Your task to perform on an android device: check out phone information Image 0: 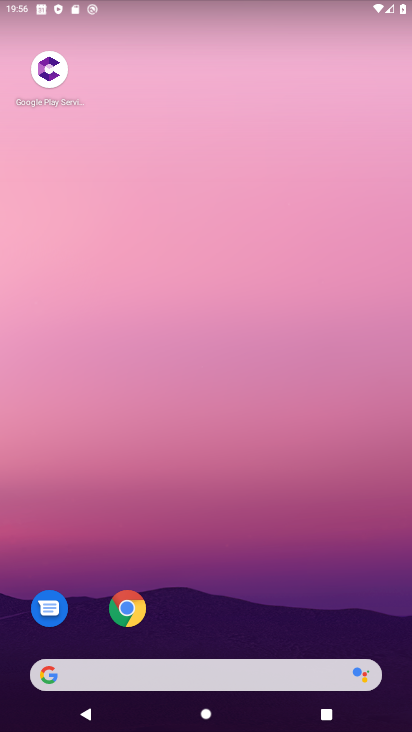
Step 0: drag from (275, 579) to (211, 80)
Your task to perform on an android device: check out phone information Image 1: 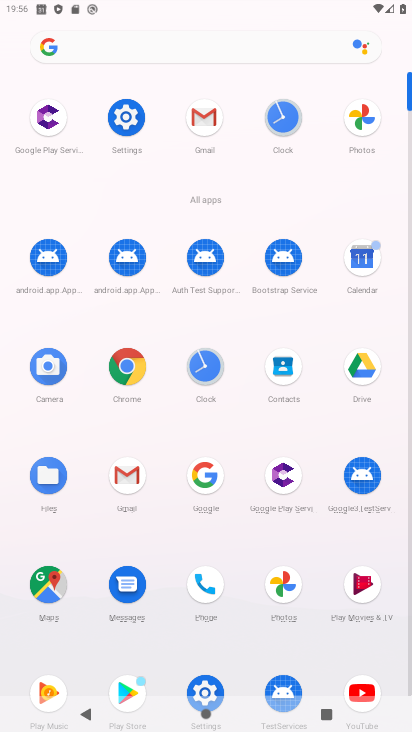
Step 1: click (124, 117)
Your task to perform on an android device: check out phone information Image 2: 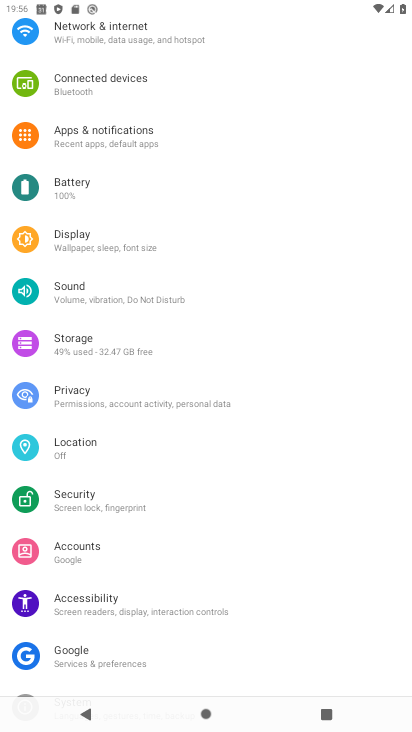
Step 2: drag from (181, 655) to (175, 39)
Your task to perform on an android device: check out phone information Image 3: 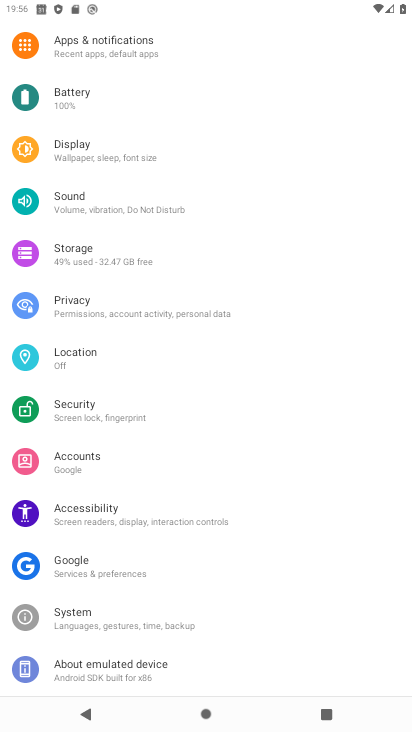
Step 3: click (147, 669)
Your task to perform on an android device: check out phone information Image 4: 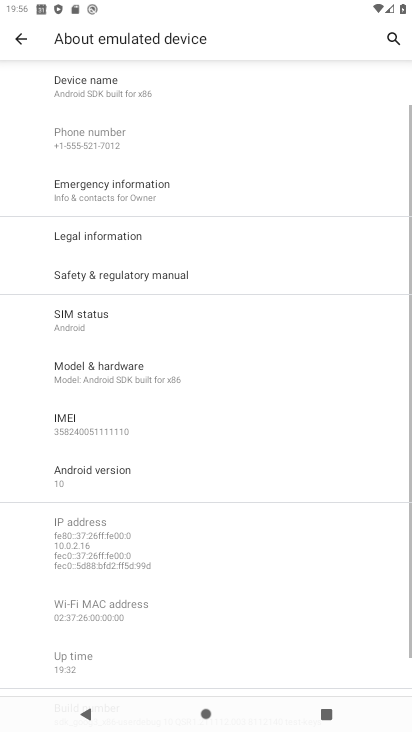
Step 4: task complete